Your task to perform on an android device: turn on data saver in the chrome app Image 0: 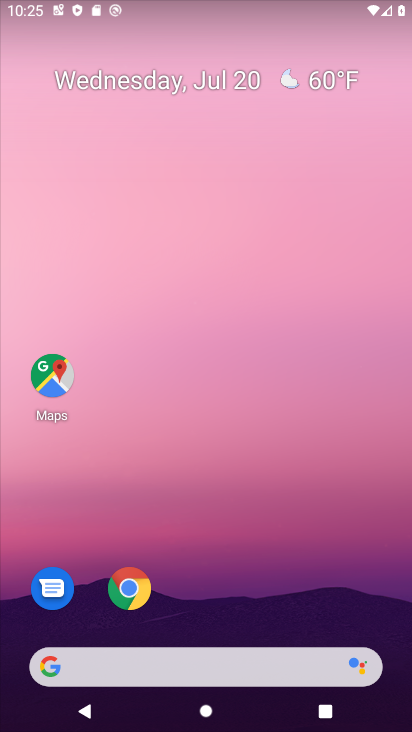
Step 0: drag from (214, 611) to (231, 50)
Your task to perform on an android device: turn on data saver in the chrome app Image 1: 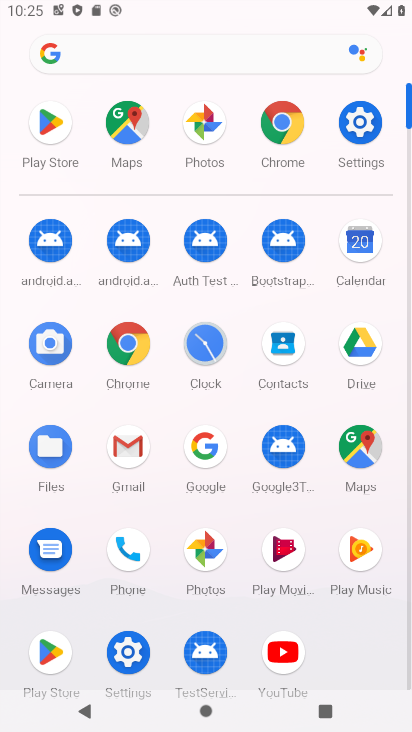
Step 1: click (130, 357)
Your task to perform on an android device: turn on data saver in the chrome app Image 2: 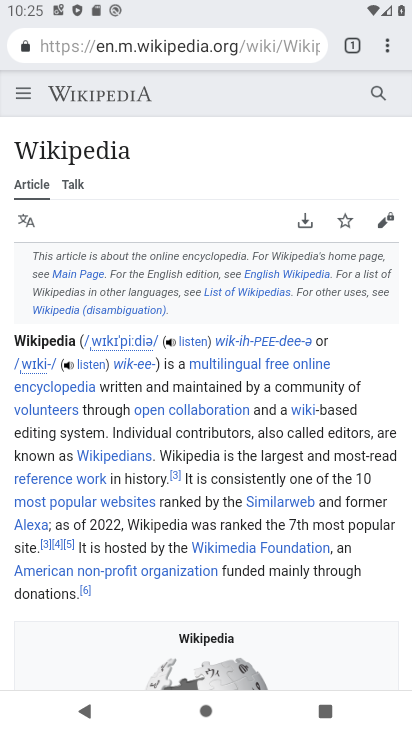
Step 2: click (386, 47)
Your task to perform on an android device: turn on data saver in the chrome app Image 3: 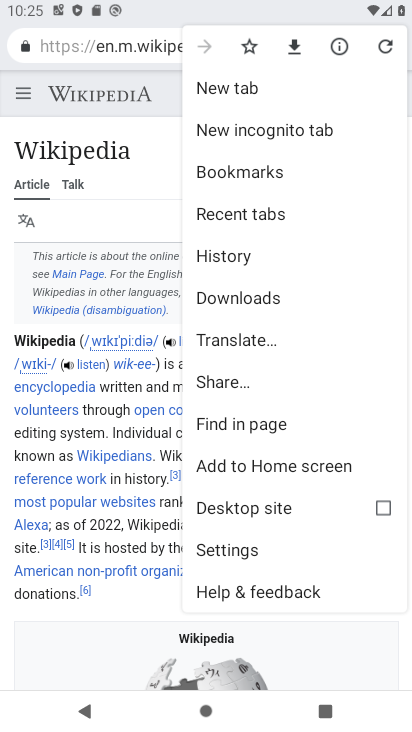
Step 3: click (229, 556)
Your task to perform on an android device: turn on data saver in the chrome app Image 4: 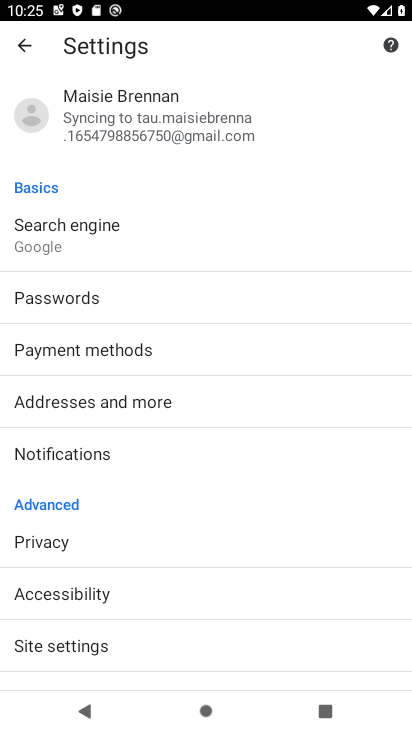
Step 4: drag from (63, 623) to (115, 335)
Your task to perform on an android device: turn on data saver in the chrome app Image 5: 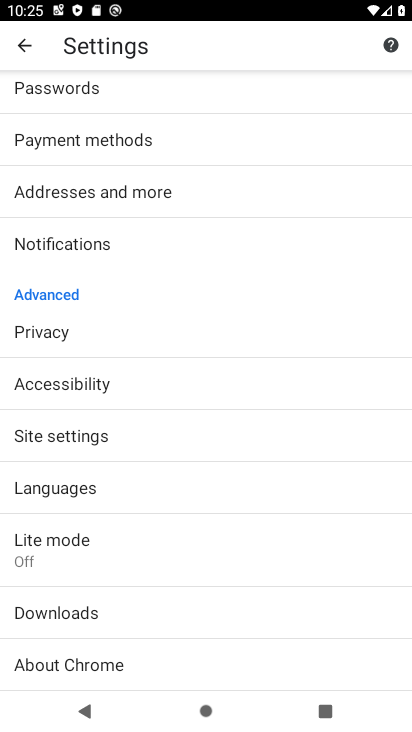
Step 5: click (73, 553)
Your task to perform on an android device: turn on data saver in the chrome app Image 6: 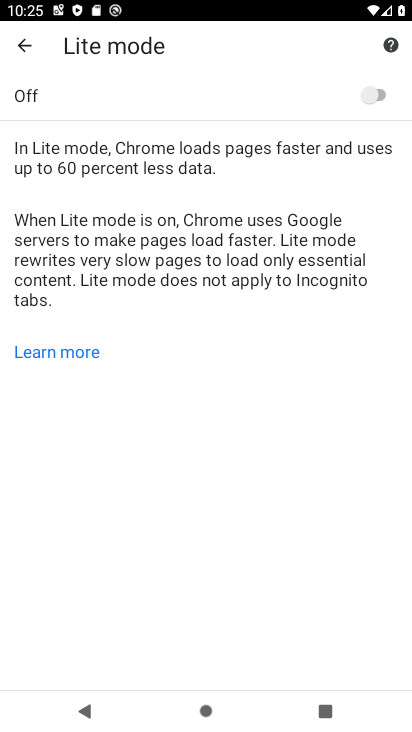
Step 6: click (387, 92)
Your task to perform on an android device: turn on data saver in the chrome app Image 7: 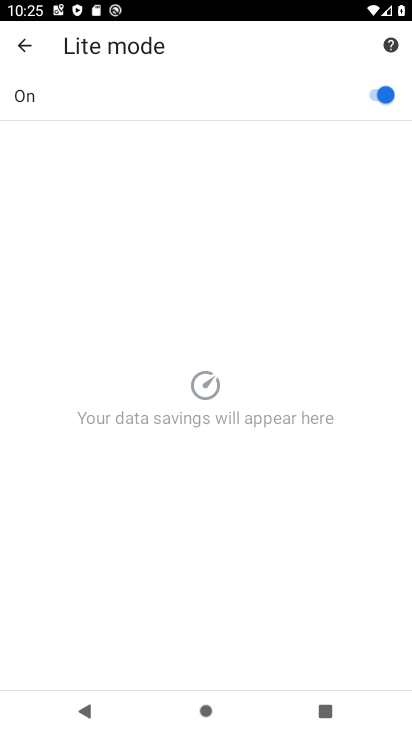
Step 7: task complete